Your task to perform on an android device: snooze an email in the gmail app Image 0: 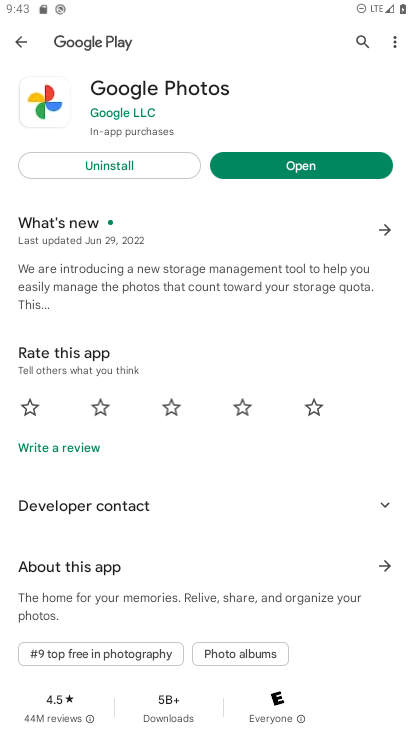
Step 0: press home button
Your task to perform on an android device: snooze an email in the gmail app Image 1: 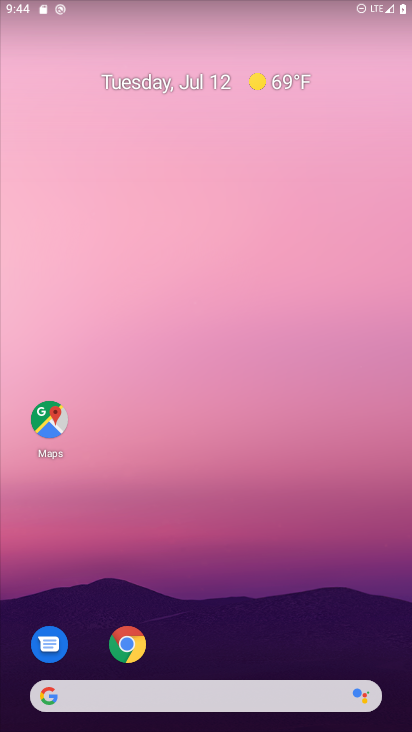
Step 1: drag from (223, 656) to (208, 33)
Your task to perform on an android device: snooze an email in the gmail app Image 2: 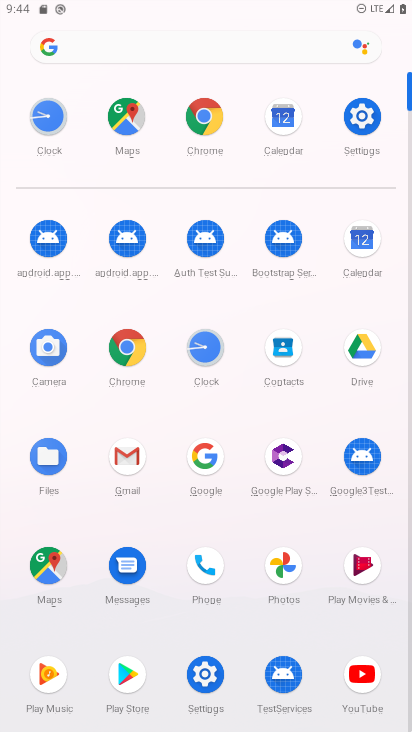
Step 2: click (129, 452)
Your task to perform on an android device: snooze an email in the gmail app Image 3: 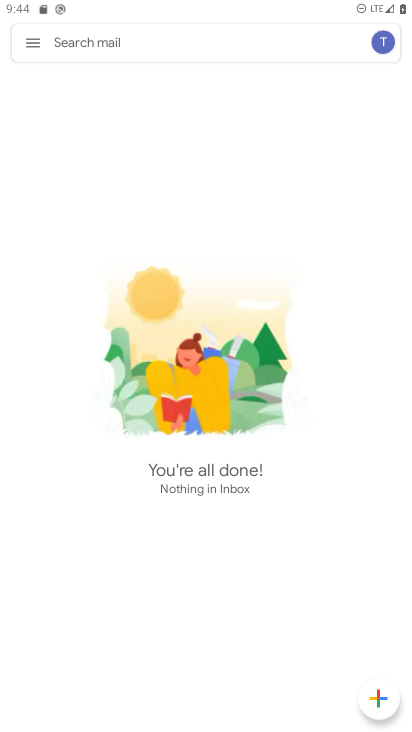
Step 3: task complete